Your task to perform on an android device: See recent photos Image 0: 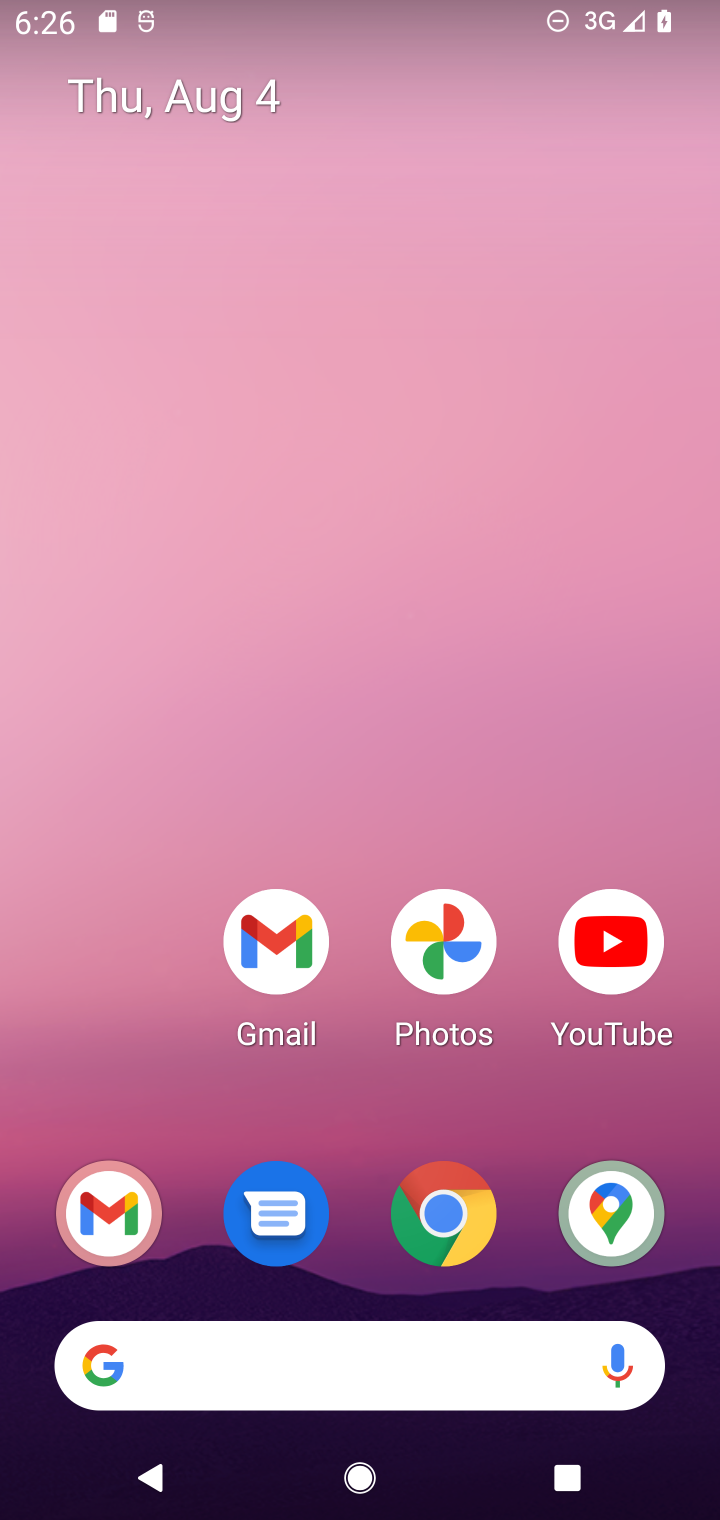
Step 0: press home button
Your task to perform on an android device: See recent photos Image 1: 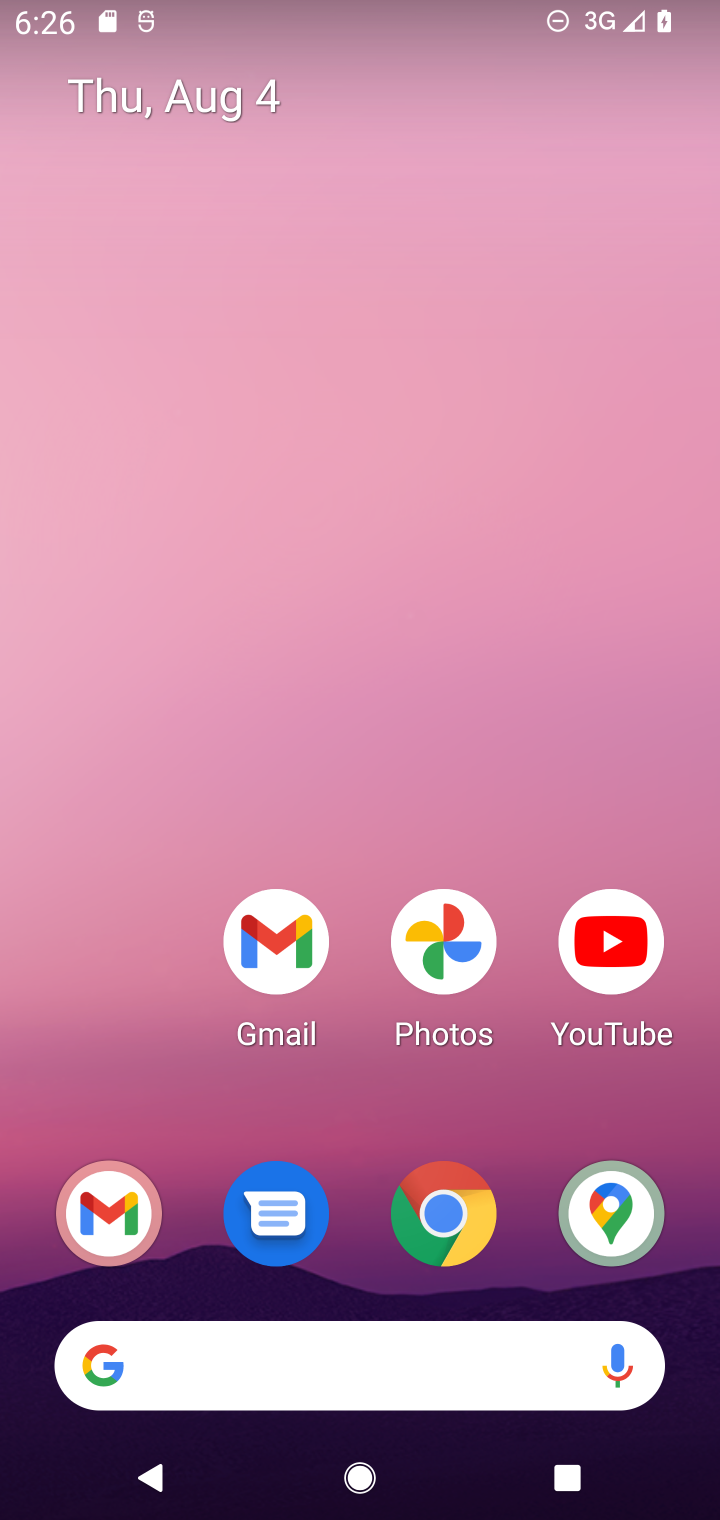
Step 1: drag from (158, 1091) to (111, 289)
Your task to perform on an android device: See recent photos Image 2: 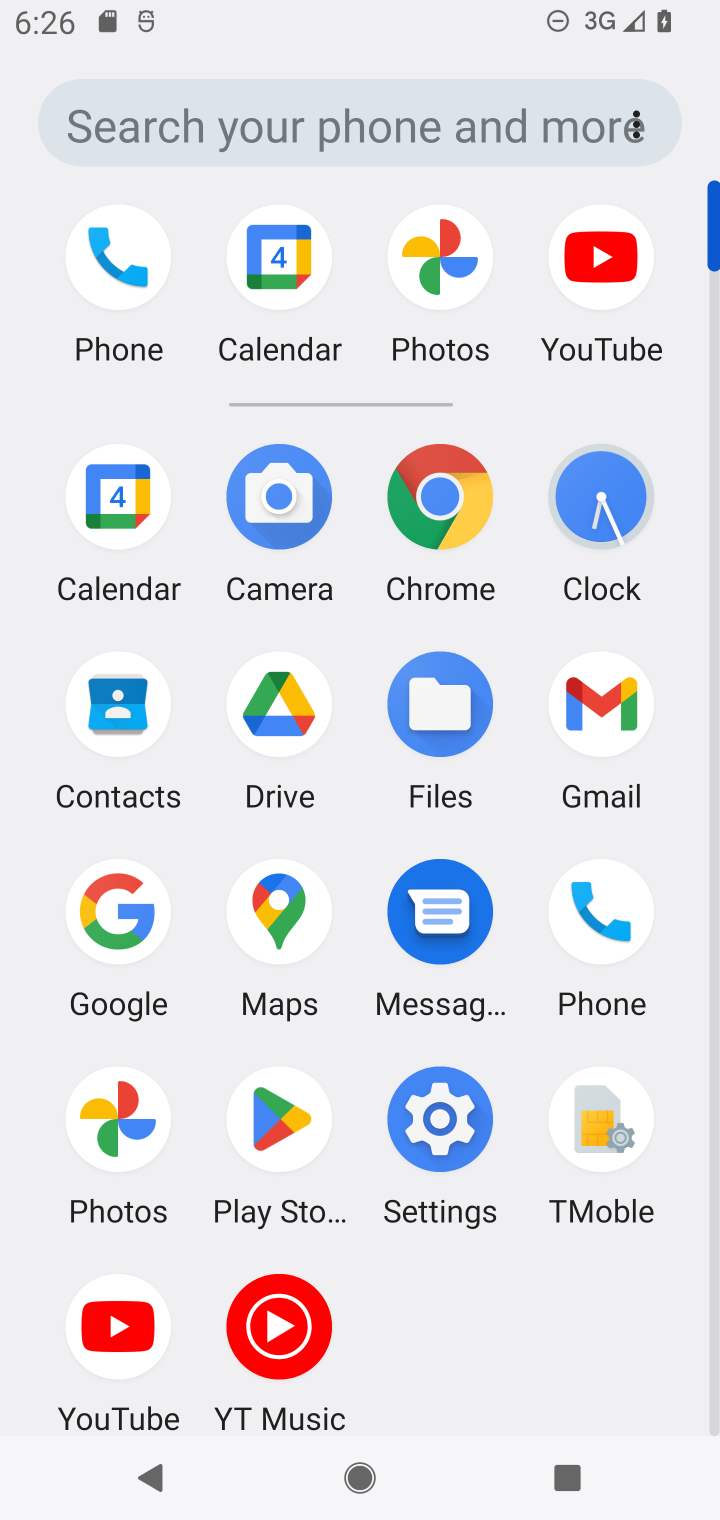
Step 2: click (109, 1127)
Your task to perform on an android device: See recent photos Image 3: 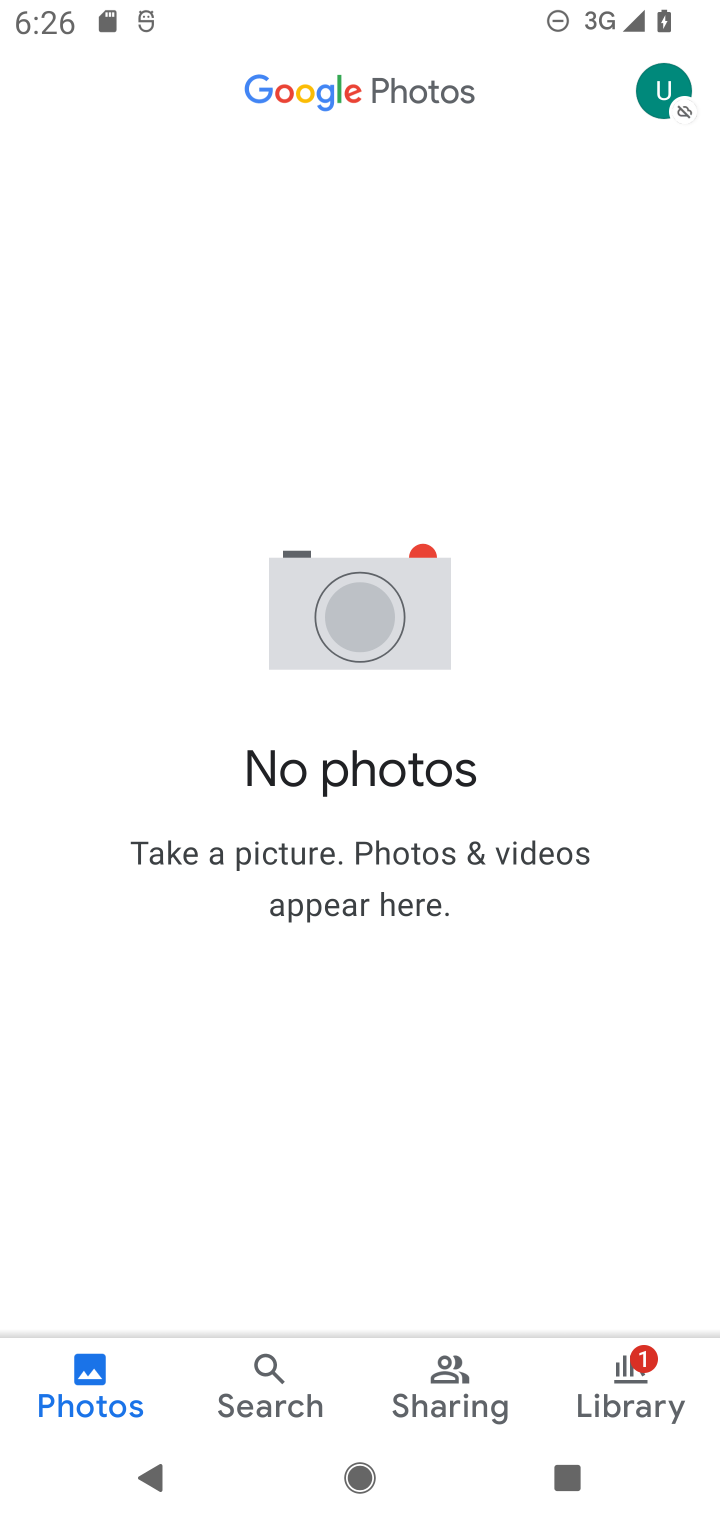
Step 3: task complete